Your task to perform on an android device: What's the weather going to be tomorrow? Image 0: 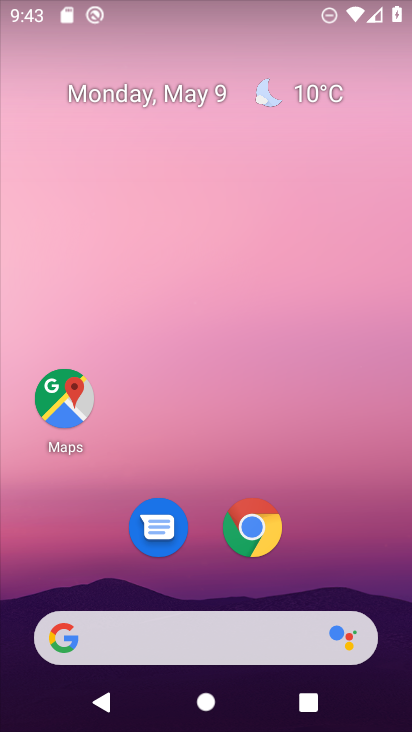
Step 0: click (313, 92)
Your task to perform on an android device: What's the weather going to be tomorrow? Image 1: 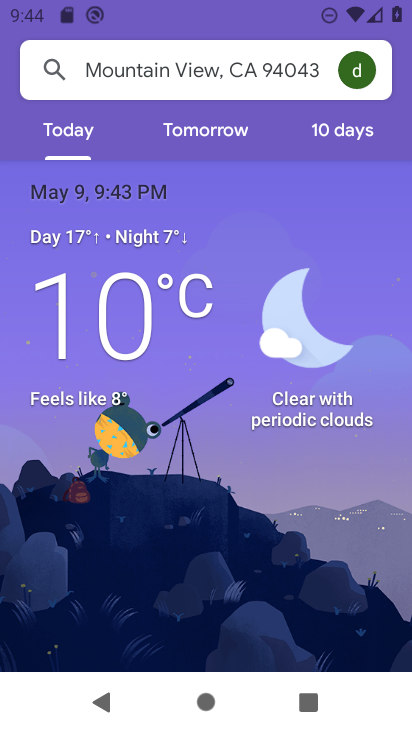
Step 1: click (220, 142)
Your task to perform on an android device: What's the weather going to be tomorrow? Image 2: 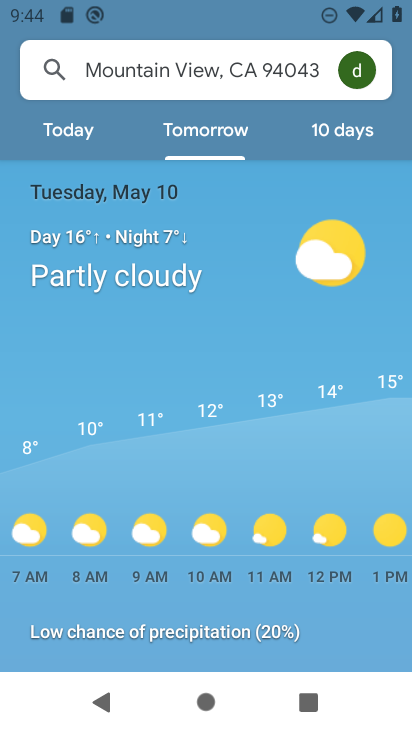
Step 2: task complete